Your task to perform on an android device: open a new tab in the chrome app Image 0: 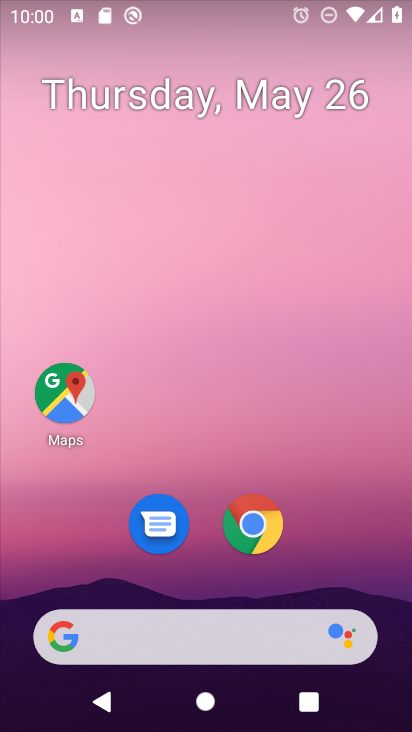
Step 0: click (261, 515)
Your task to perform on an android device: open a new tab in the chrome app Image 1: 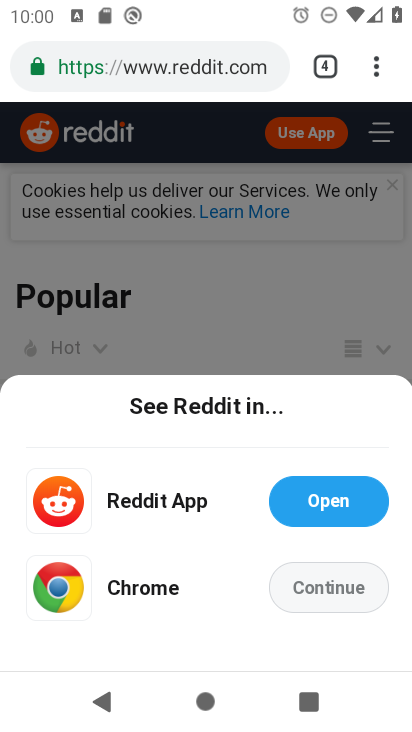
Step 1: click (373, 62)
Your task to perform on an android device: open a new tab in the chrome app Image 2: 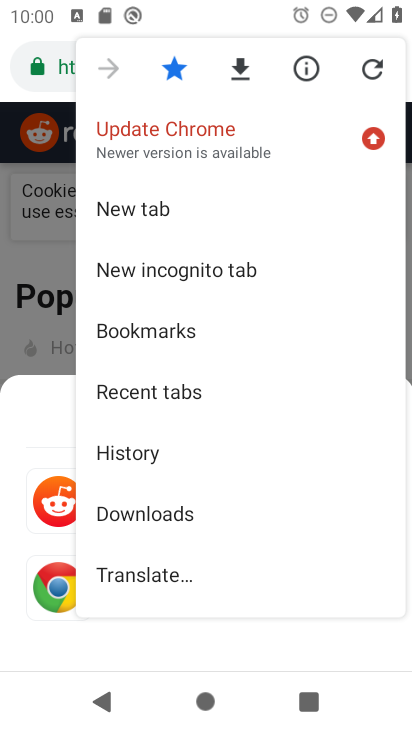
Step 2: click (210, 207)
Your task to perform on an android device: open a new tab in the chrome app Image 3: 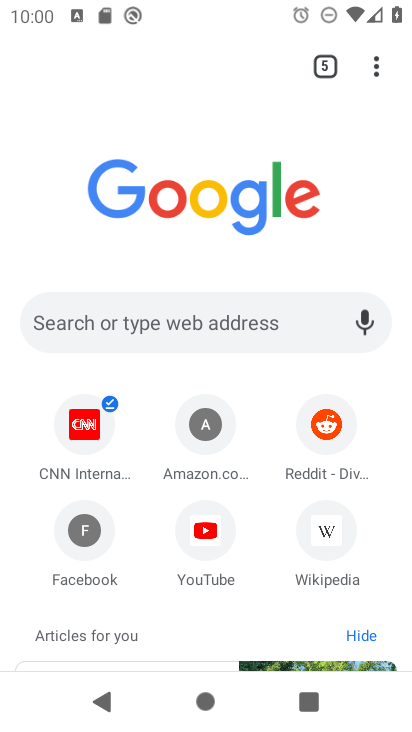
Step 3: task complete